Your task to perform on an android device: Open Reddit.com Image 0: 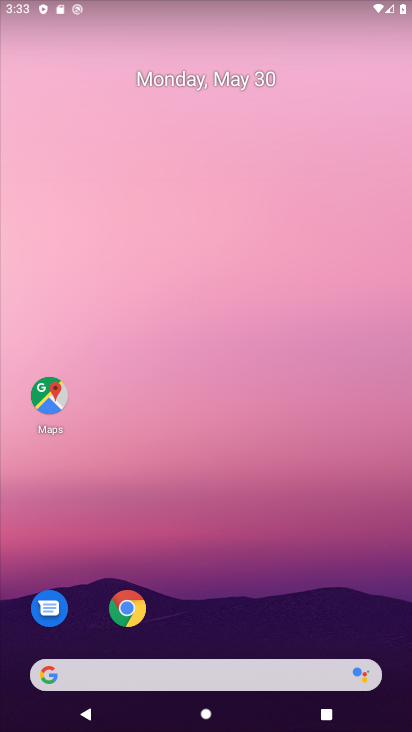
Step 0: click (136, 667)
Your task to perform on an android device: Open Reddit.com Image 1: 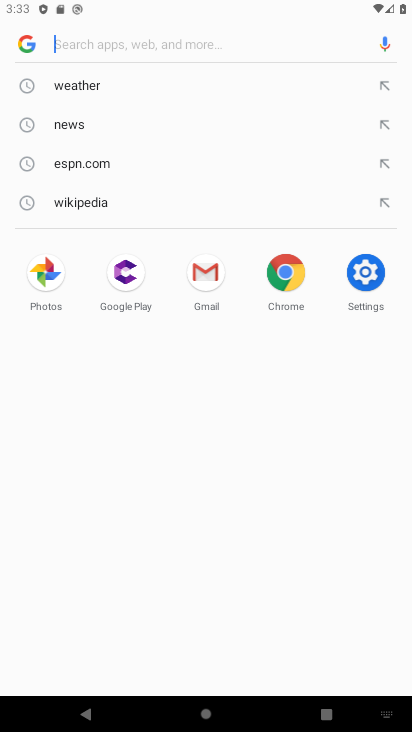
Step 1: type "Reddit.com"
Your task to perform on an android device: Open Reddit.com Image 2: 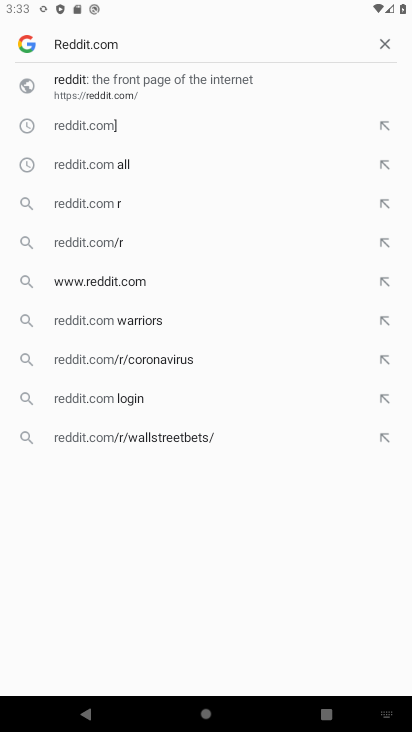
Step 2: click (164, 92)
Your task to perform on an android device: Open Reddit.com Image 3: 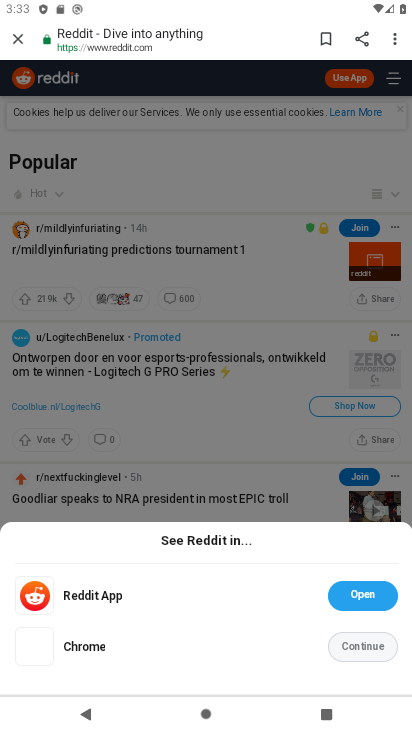
Step 3: task complete